Your task to perform on an android device: turn on showing notifications on the lock screen Image 0: 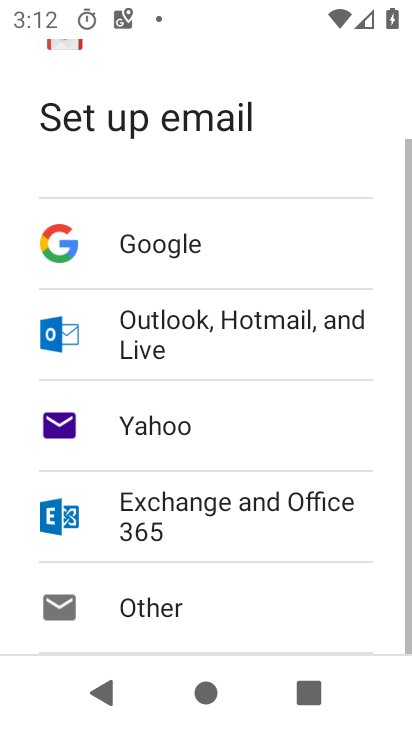
Step 0: drag from (214, 528) to (232, 155)
Your task to perform on an android device: turn on showing notifications on the lock screen Image 1: 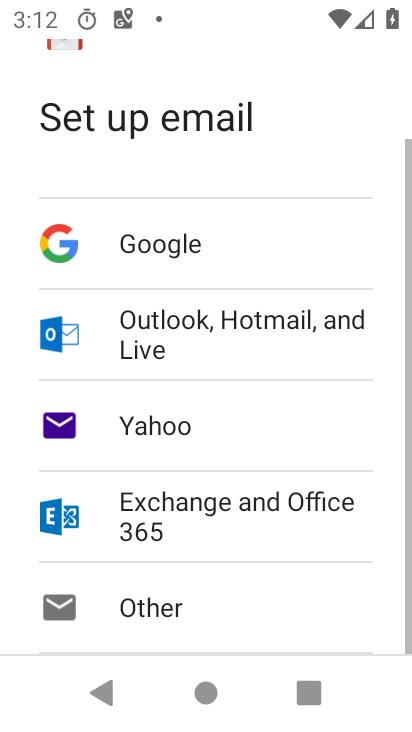
Step 1: press home button
Your task to perform on an android device: turn on showing notifications on the lock screen Image 2: 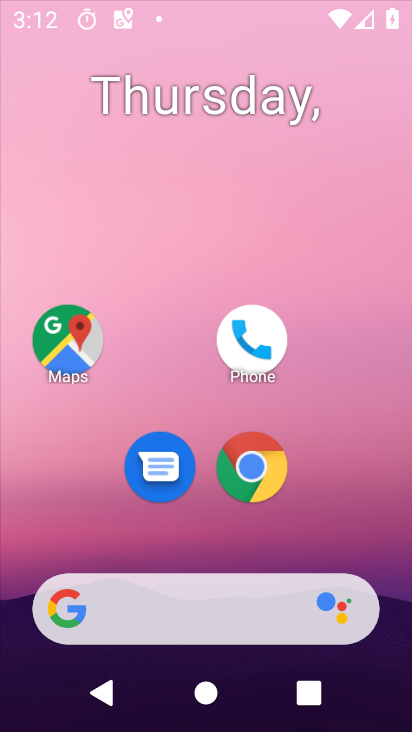
Step 2: drag from (175, 606) to (199, 63)
Your task to perform on an android device: turn on showing notifications on the lock screen Image 3: 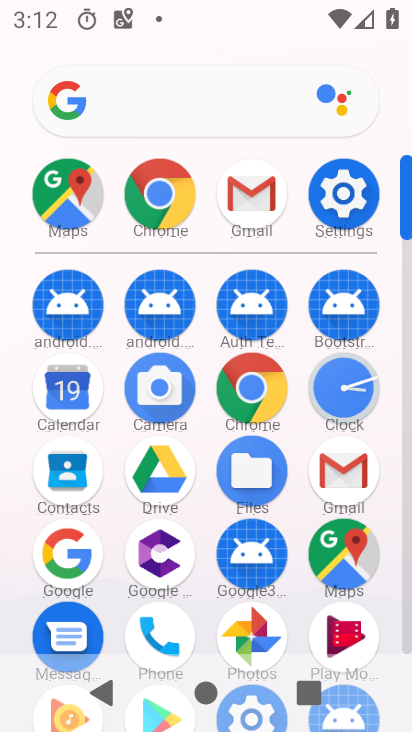
Step 3: click (349, 197)
Your task to perform on an android device: turn on showing notifications on the lock screen Image 4: 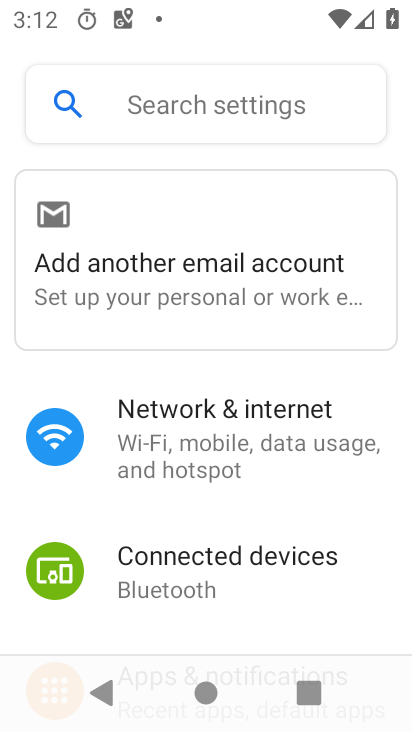
Step 4: drag from (202, 544) to (226, 156)
Your task to perform on an android device: turn on showing notifications on the lock screen Image 5: 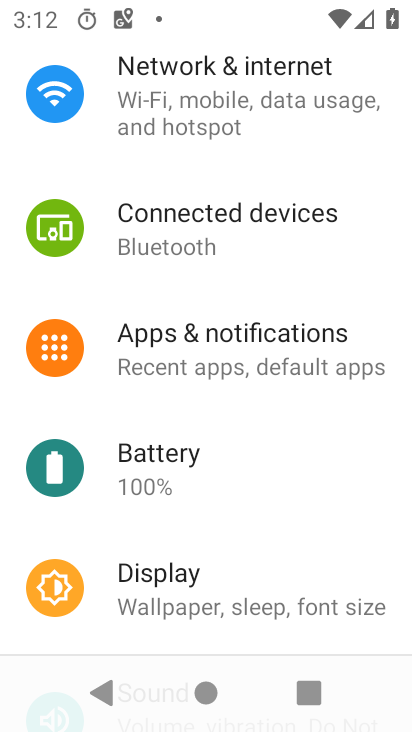
Step 5: drag from (228, 533) to (227, 255)
Your task to perform on an android device: turn on showing notifications on the lock screen Image 6: 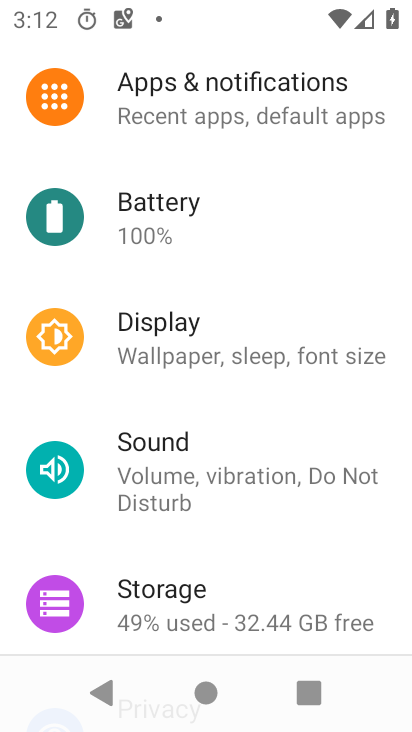
Step 6: drag from (224, 220) to (238, 724)
Your task to perform on an android device: turn on showing notifications on the lock screen Image 7: 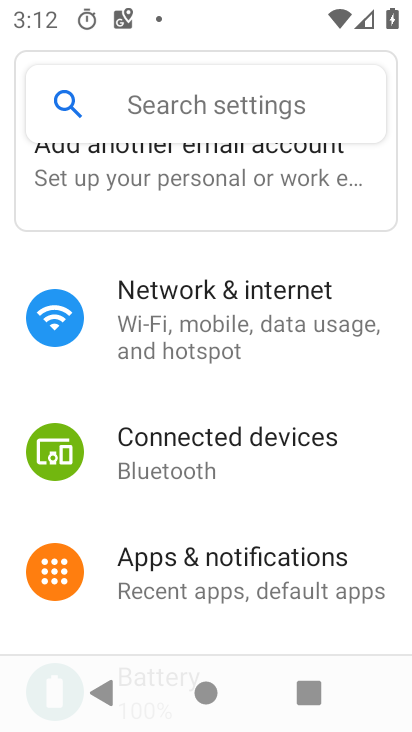
Step 7: click (218, 572)
Your task to perform on an android device: turn on showing notifications on the lock screen Image 8: 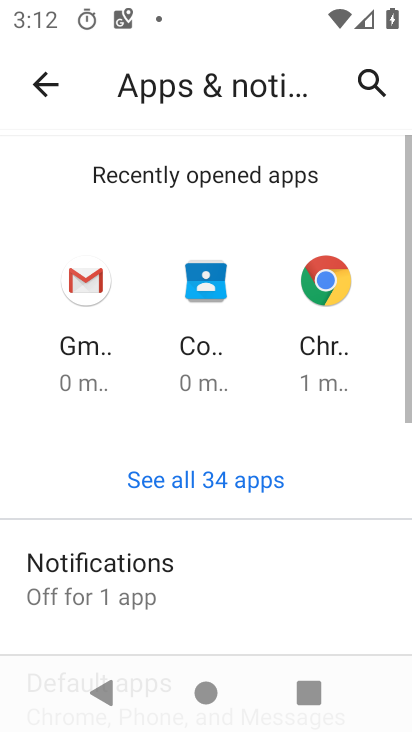
Step 8: click (170, 560)
Your task to perform on an android device: turn on showing notifications on the lock screen Image 9: 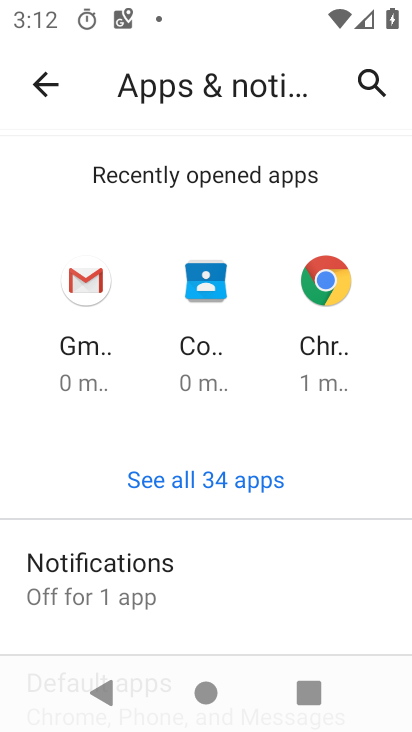
Step 9: drag from (174, 558) to (306, 88)
Your task to perform on an android device: turn on showing notifications on the lock screen Image 10: 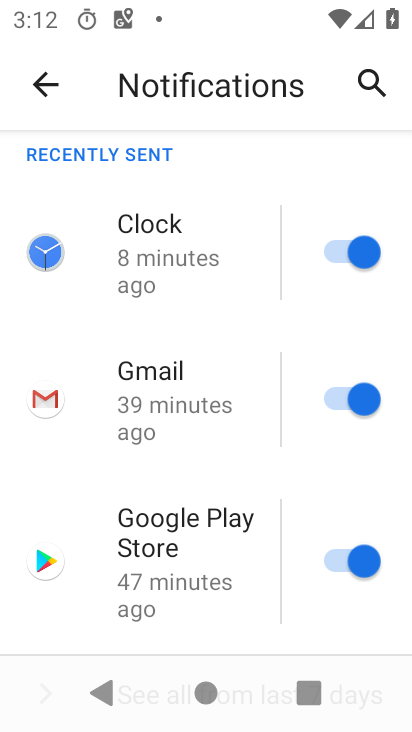
Step 10: drag from (203, 594) to (280, 124)
Your task to perform on an android device: turn on showing notifications on the lock screen Image 11: 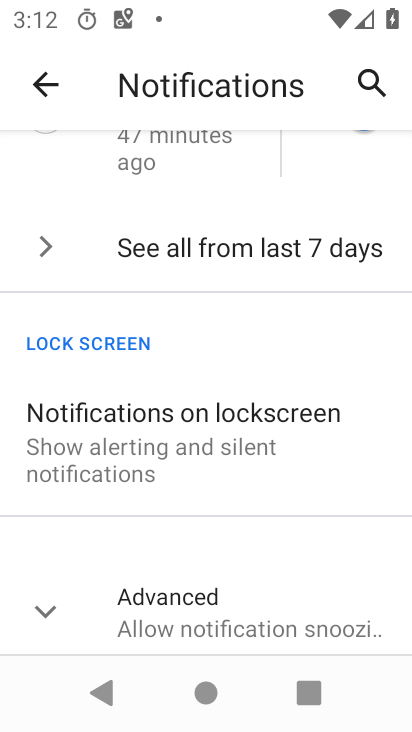
Step 11: click (197, 424)
Your task to perform on an android device: turn on showing notifications on the lock screen Image 12: 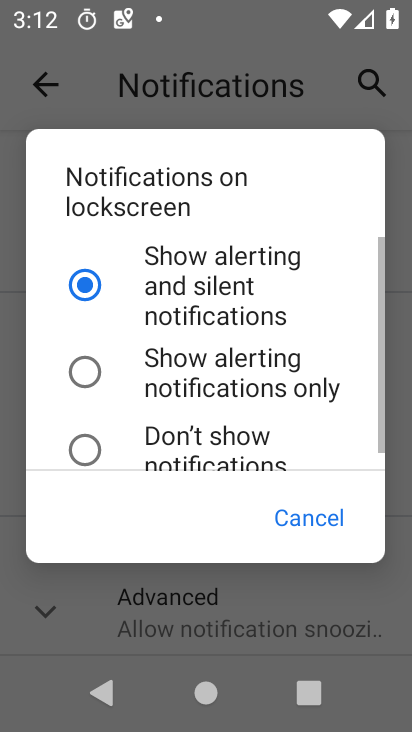
Step 12: click (148, 389)
Your task to perform on an android device: turn on showing notifications on the lock screen Image 13: 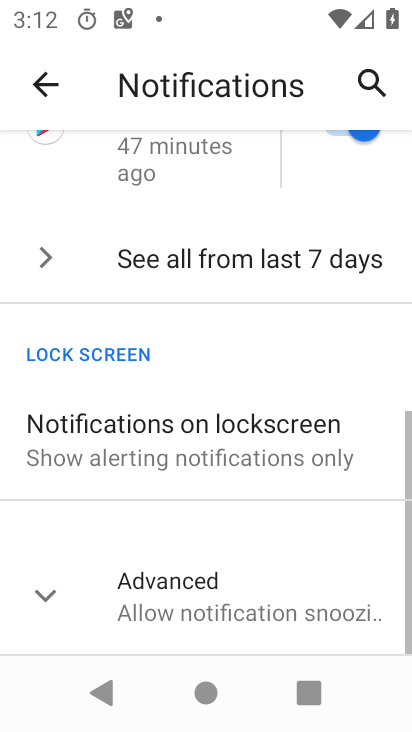
Step 13: task complete